Your task to perform on an android device: Go to Amazon Image 0: 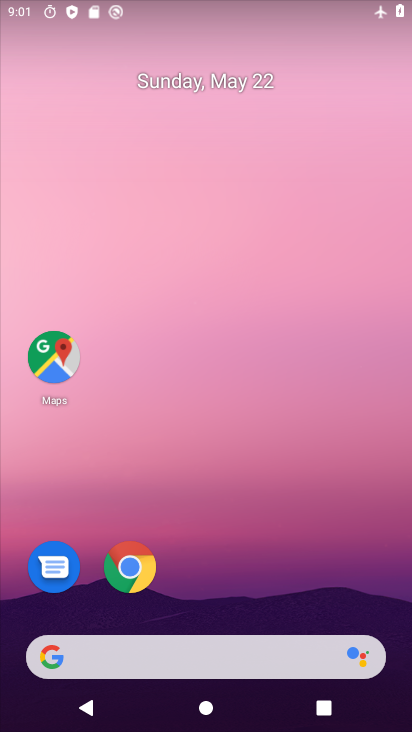
Step 0: click (137, 569)
Your task to perform on an android device: Go to Amazon Image 1: 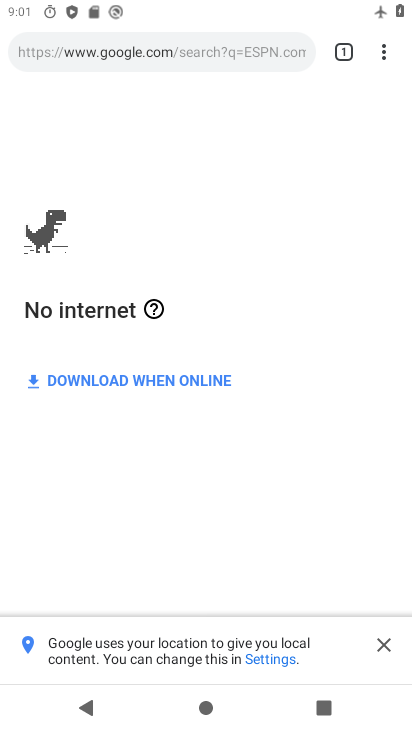
Step 1: click (211, 40)
Your task to perform on an android device: Go to Amazon Image 2: 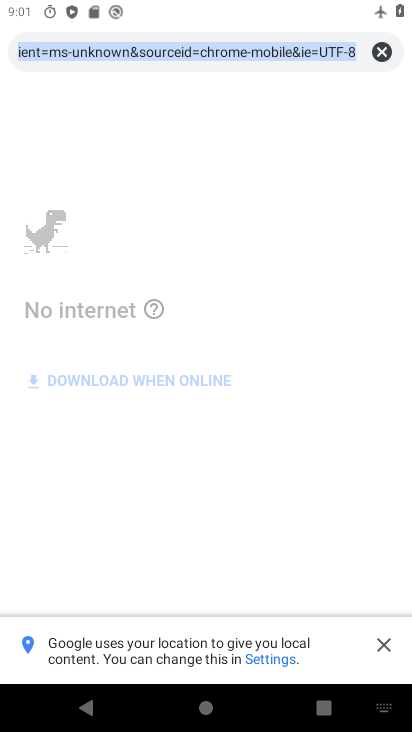
Step 2: type "Amazon"
Your task to perform on an android device: Go to Amazon Image 3: 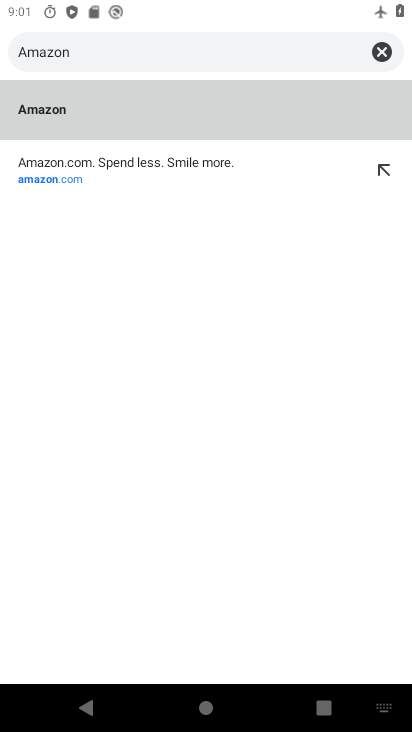
Step 3: click (148, 168)
Your task to perform on an android device: Go to Amazon Image 4: 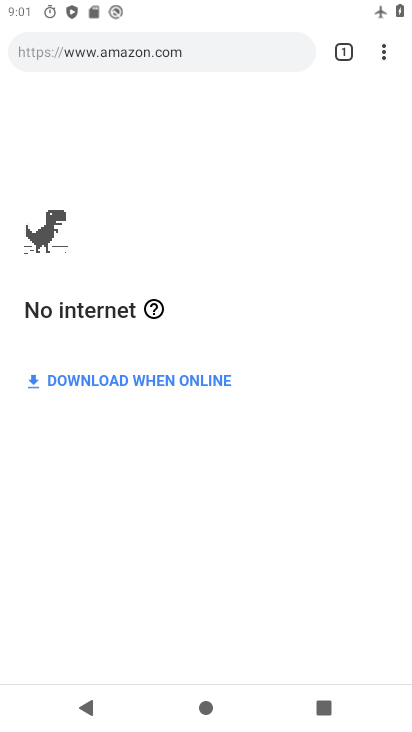
Step 4: task complete